Your task to perform on an android device: open a bookmark in the chrome app Image 0: 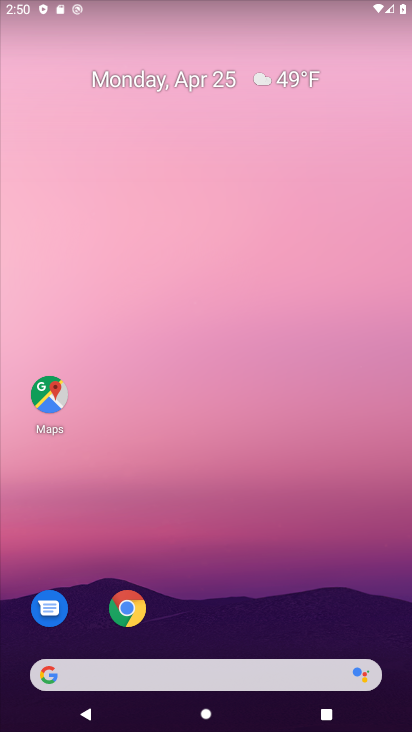
Step 0: drag from (196, 672) to (228, 66)
Your task to perform on an android device: open a bookmark in the chrome app Image 1: 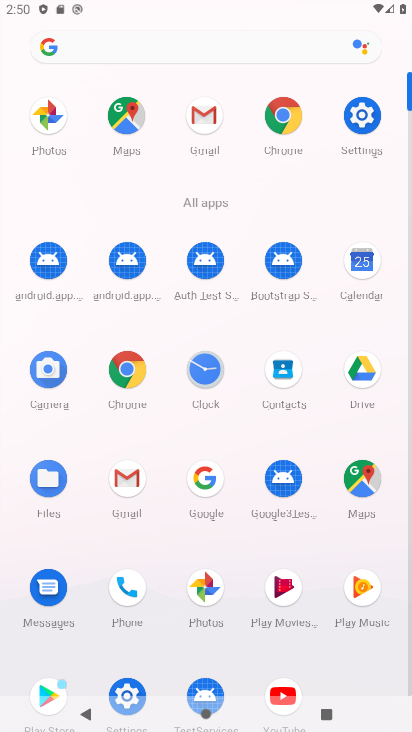
Step 1: click (280, 127)
Your task to perform on an android device: open a bookmark in the chrome app Image 2: 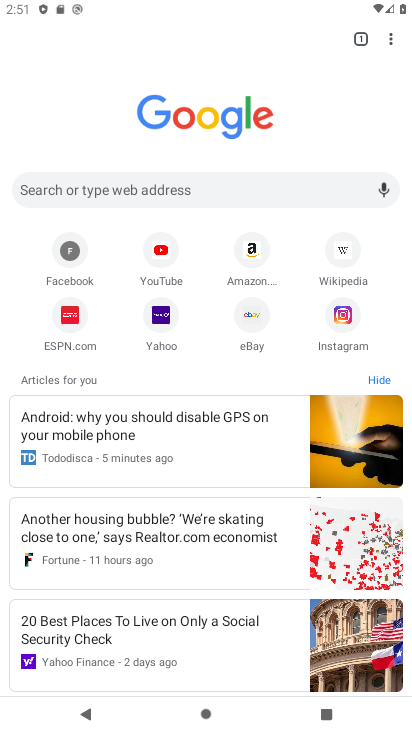
Step 2: task complete